Your task to perform on an android device: Open location settings Image 0: 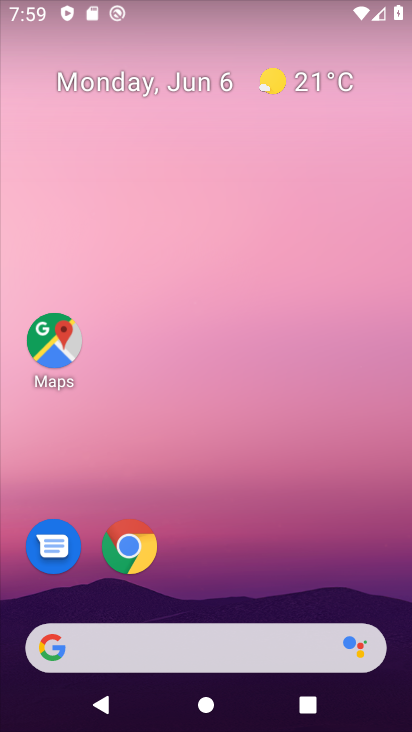
Step 0: task complete